Your task to perform on an android device: empty trash in google photos Image 0: 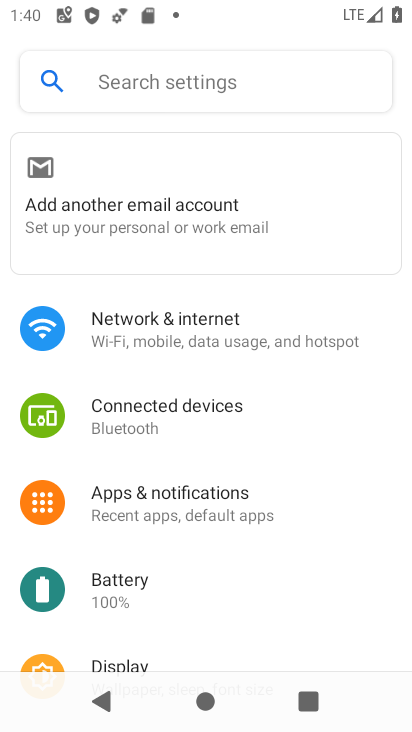
Step 0: press home button
Your task to perform on an android device: empty trash in google photos Image 1: 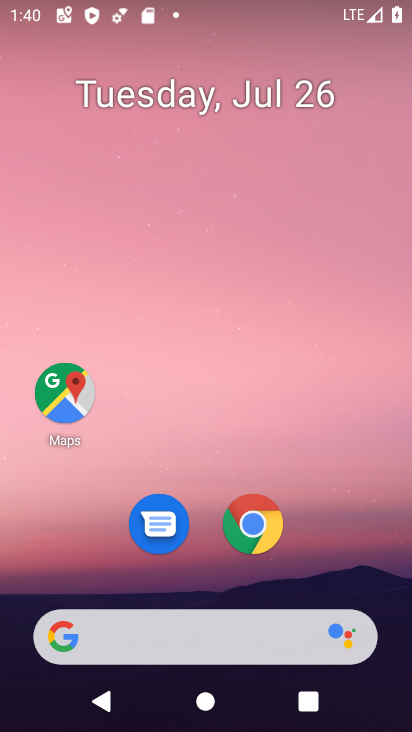
Step 1: drag from (303, 529) to (346, 34)
Your task to perform on an android device: empty trash in google photos Image 2: 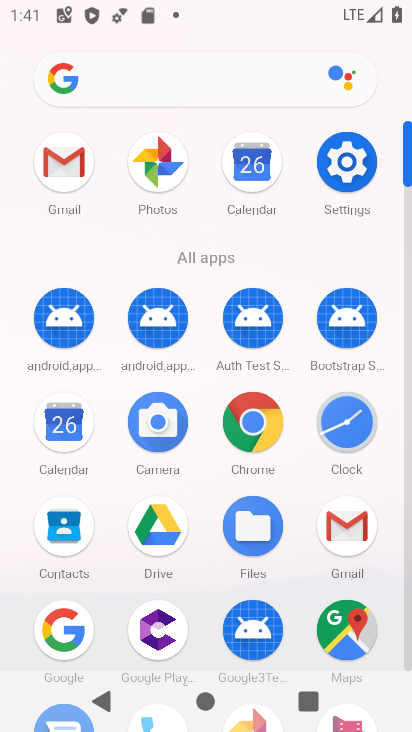
Step 2: click (151, 160)
Your task to perform on an android device: empty trash in google photos Image 3: 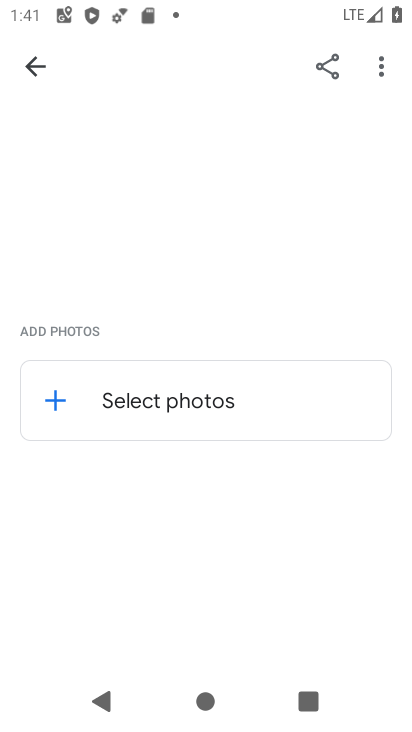
Step 3: click (36, 64)
Your task to perform on an android device: empty trash in google photos Image 4: 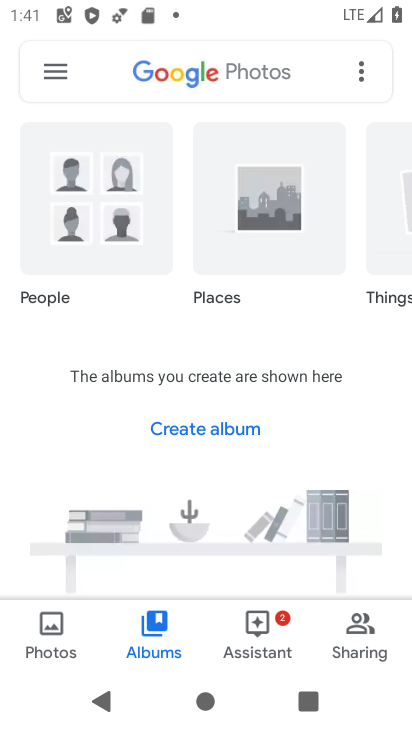
Step 4: click (53, 623)
Your task to perform on an android device: empty trash in google photos Image 5: 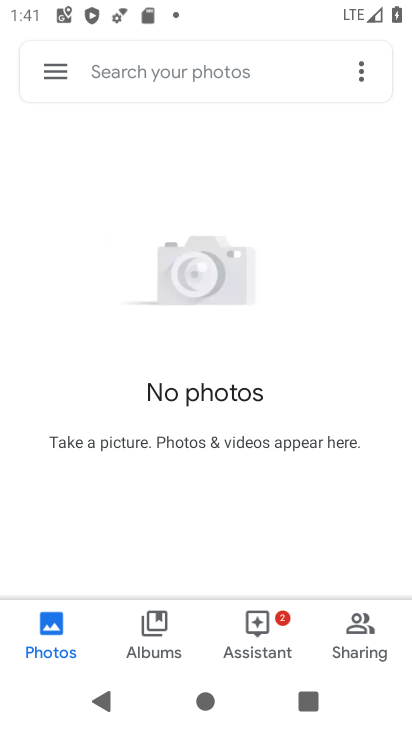
Step 5: click (51, 55)
Your task to perform on an android device: empty trash in google photos Image 6: 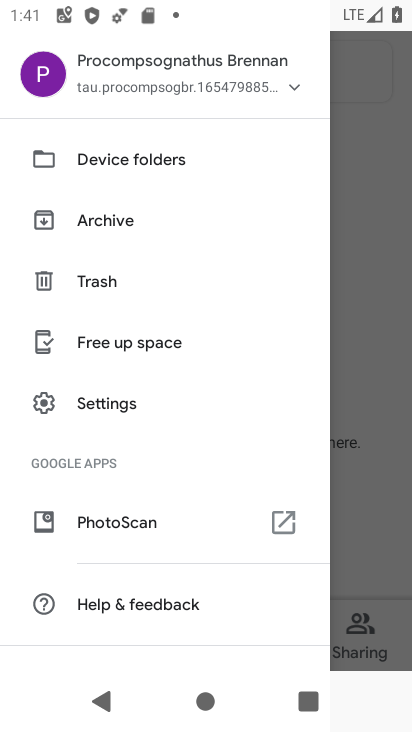
Step 6: click (97, 279)
Your task to perform on an android device: empty trash in google photos Image 7: 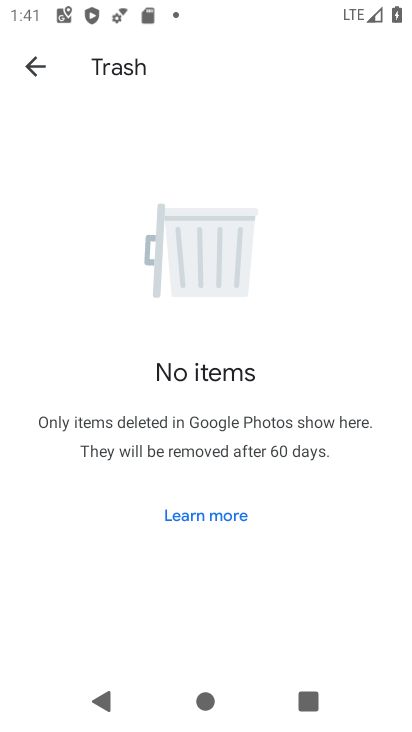
Step 7: task complete